Your task to perform on an android device: turn off smart reply in the gmail app Image 0: 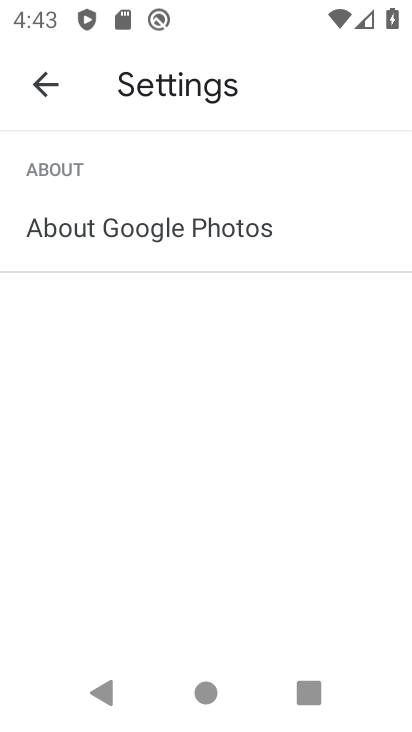
Step 0: press home button
Your task to perform on an android device: turn off smart reply in the gmail app Image 1: 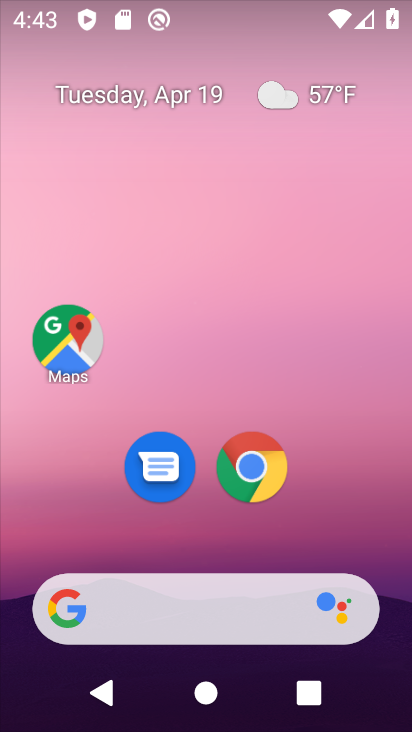
Step 1: drag from (246, 546) to (261, 240)
Your task to perform on an android device: turn off smart reply in the gmail app Image 2: 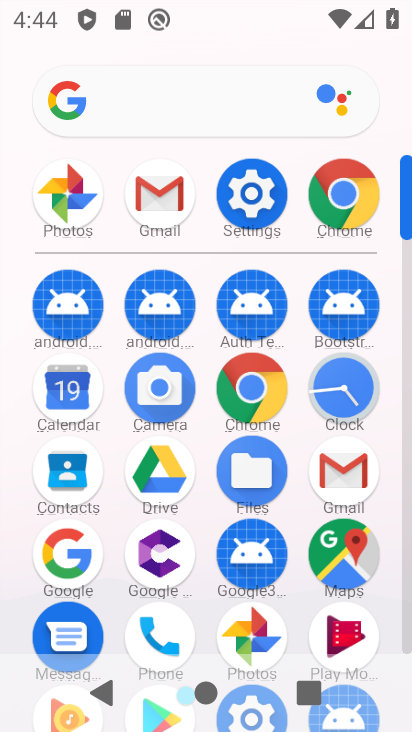
Step 2: click (354, 475)
Your task to perform on an android device: turn off smart reply in the gmail app Image 3: 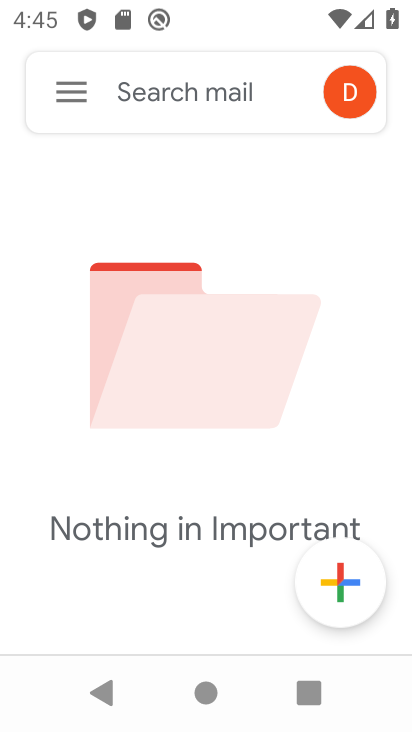
Step 3: click (87, 104)
Your task to perform on an android device: turn off smart reply in the gmail app Image 4: 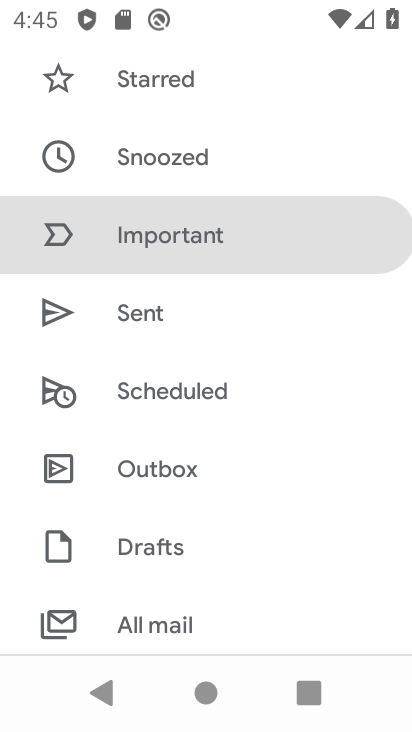
Step 4: drag from (161, 422) to (155, 344)
Your task to perform on an android device: turn off smart reply in the gmail app Image 5: 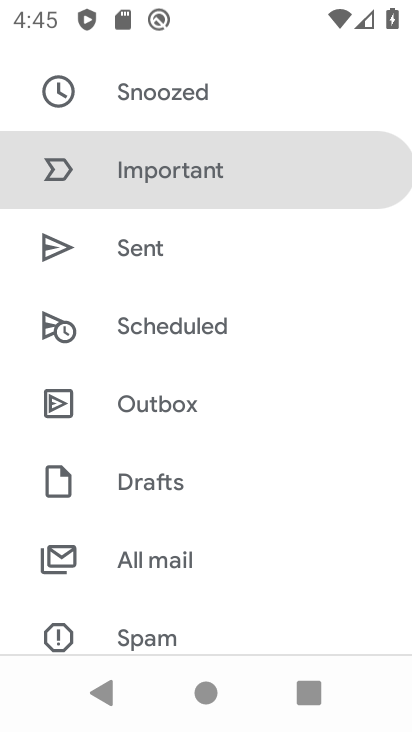
Step 5: drag from (192, 526) to (192, 231)
Your task to perform on an android device: turn off smart reply in the gmail app Image 6: 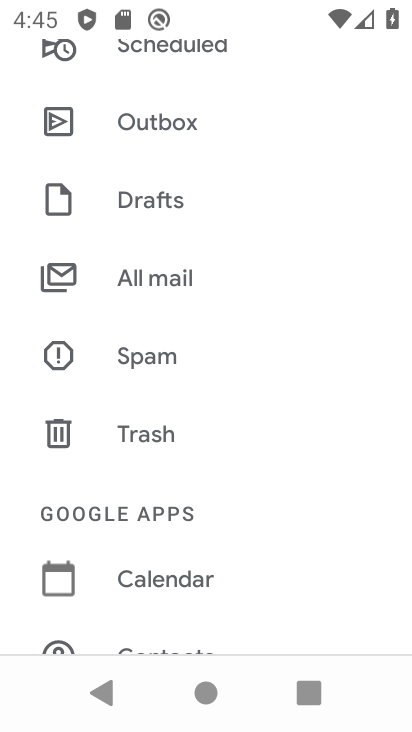
Step 6: drag from (178, 532) to (205, 156)
Your task to perform on an android device: turn off smart reply in the gmail app Image 7: 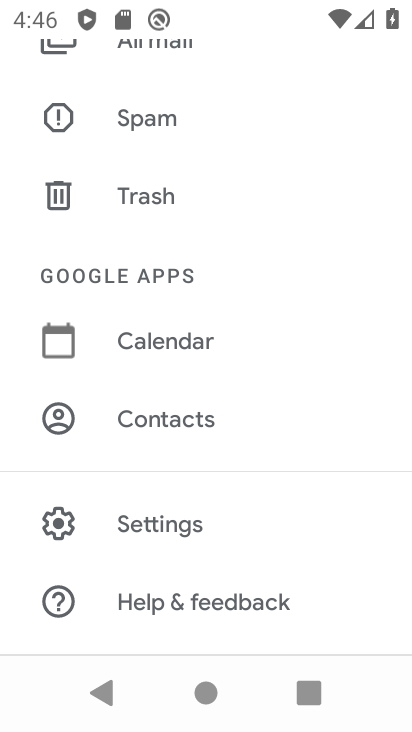
Step 7: click (182, 524)
Your task to perform on an android device: turn off smart reply in the gmail app Image 8: 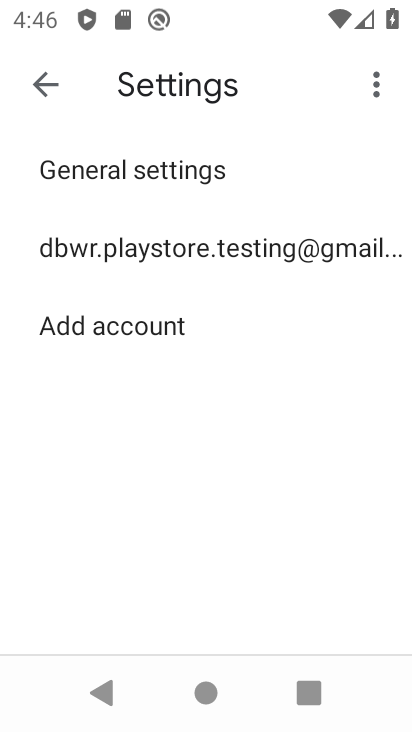
Step 8: click (146, 144)
Your task to perform on an android device: turn off smart reply in the gmail app Image 9: 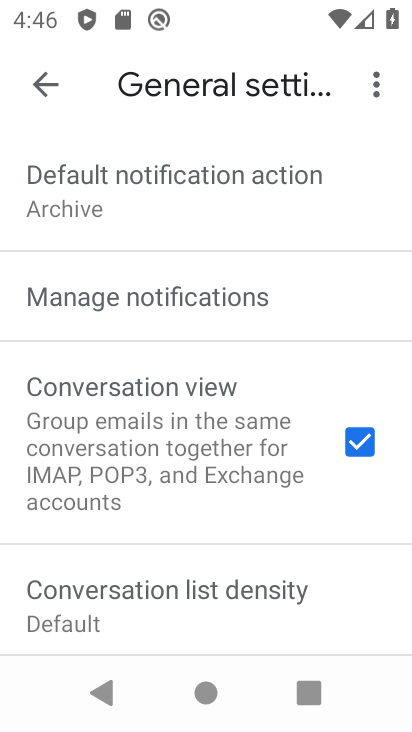
Step 9: click (52, 87)
Your task to perform on an android device: turn off smart reply in the gmail app Image 10: 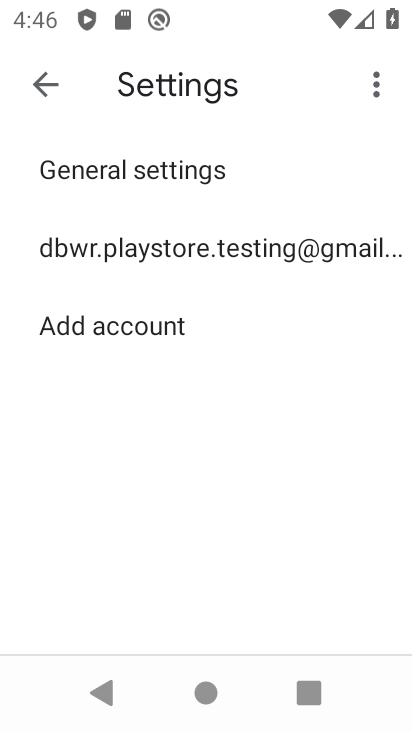
Step 10: click (285, 242)
Your task to perform on an android device: turn off smart reply in the gmail app Image 11: 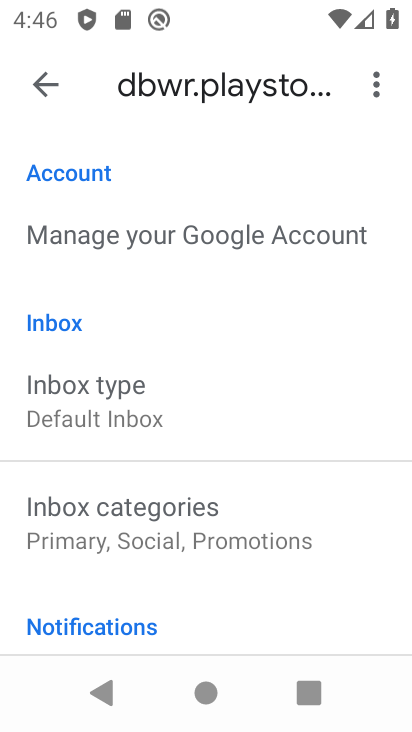
Step 11: drag from (149, 413) to (118, 156)
Your task to perform on an android device: turn off smart reply in the gmail app Image 12: 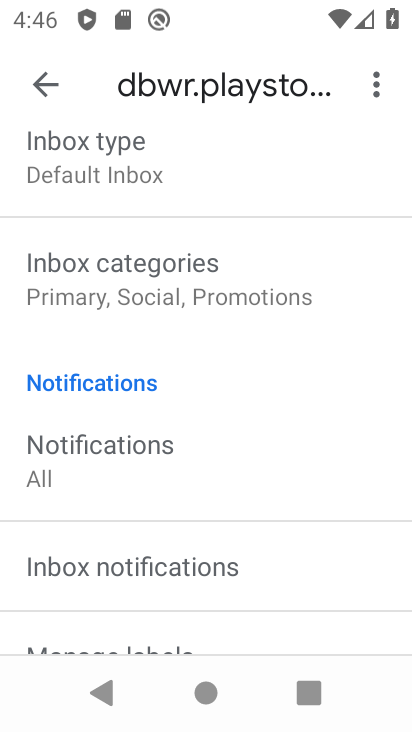
Step 12: drag from (128, 365) to (194, 11)
Your task to perform on an android device: turn off smart reply in the gmail app Image 13: 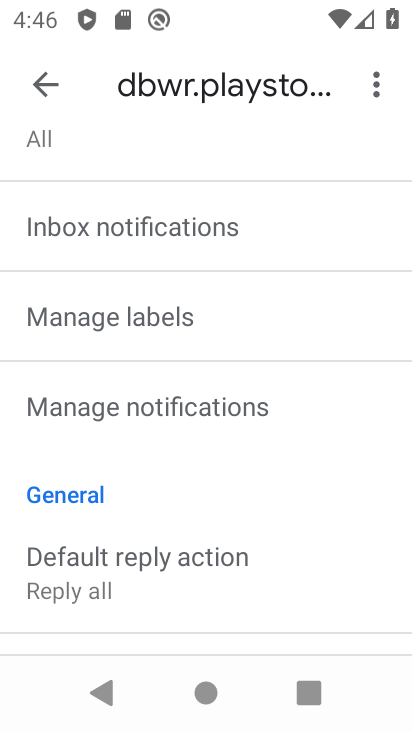
Step 13: drag from (223, 350) to (211, 257)
Your task to perform on an android device: turn off smart reply in the gmail app Image 14: 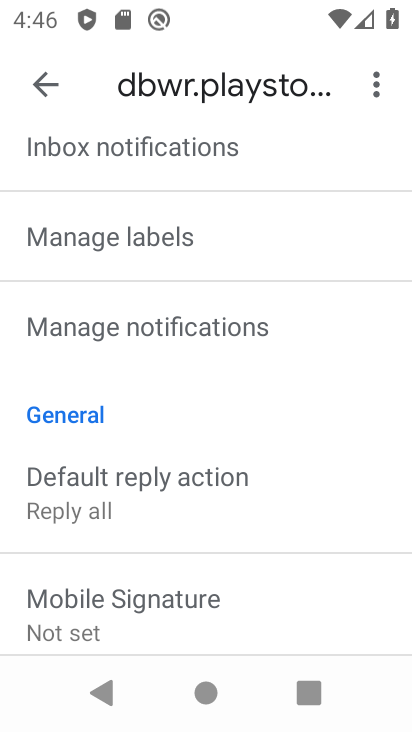
Step 14: drag from (151, 383) to (146, 188)
Your task to perform on an android device: turn off smart reply in the gmail app Image 15: 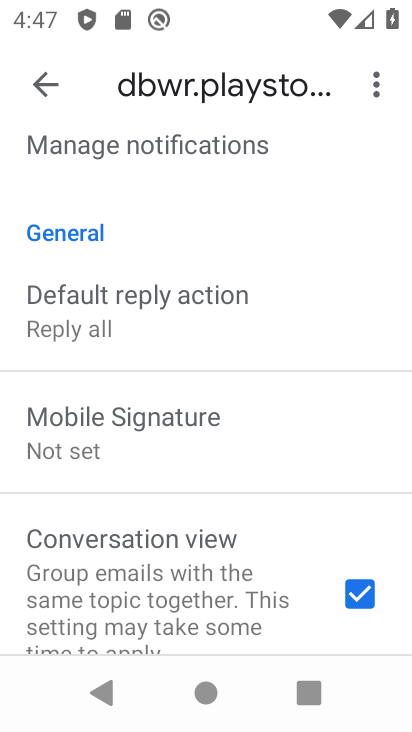
Step 15: drag from (162, 427) to (171, 139)
Your task to perform on an android device: turn off smart reply in the gmail app Image 16: 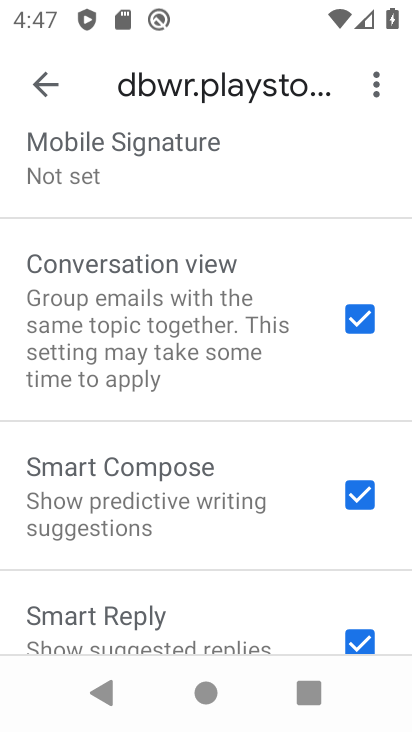
Step 16: drag from (161, 434) to (160, 288)
Your task to perform on an android device: turn off smart reply in the gmail app Image 17: 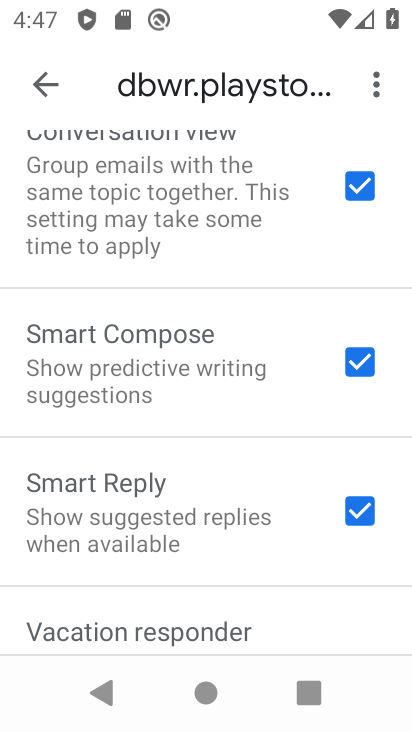
Step 17: click (362, 513)
Your task to perform on an android device: turn off smart reply in the gmail app Image 18: 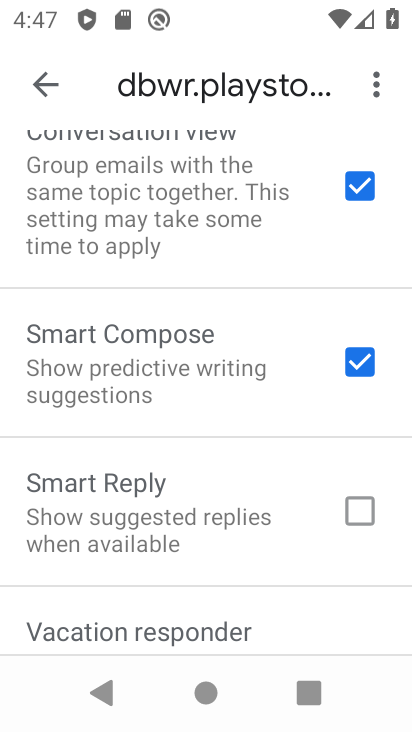
Step 18: task complete